Your task to perform on an android device: toggle show notifications on the lock screen Image 0: 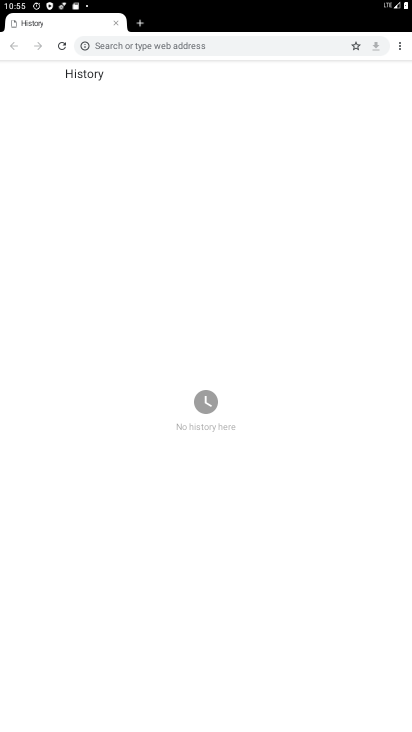
Step 0: press home button
Your task to perform on an android device: toggle show notifications on the lock screen Image 1: 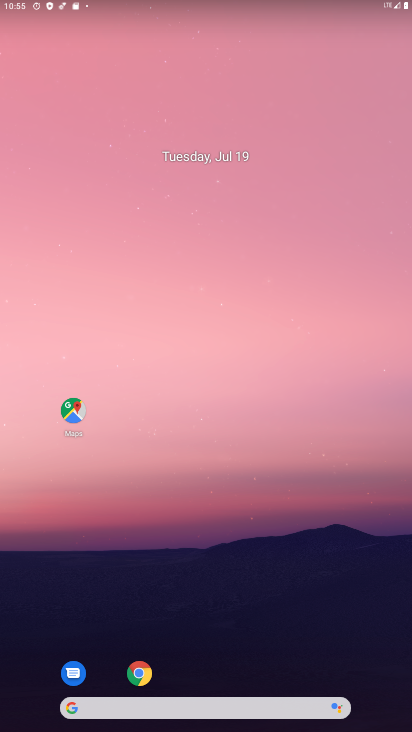
Step 1: drag from (270, 622) to (332, 192)
Your task to perform on an android device: toggle show notifications on the lock screen Image 2: 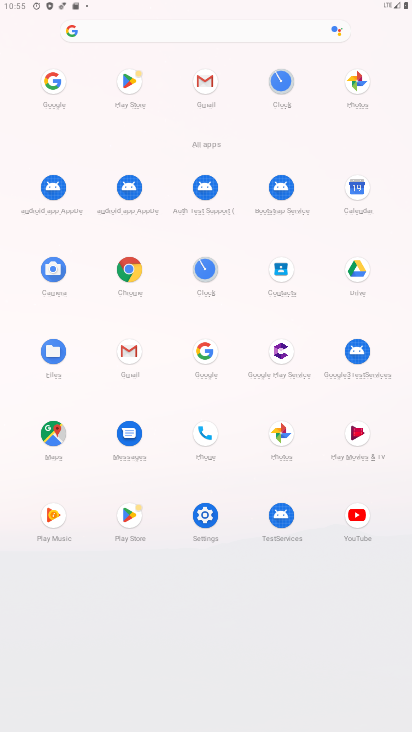
Step 2: click (197, 517)
Your task to perform on an android device: toggle show notifications on the lock screen Image 3: 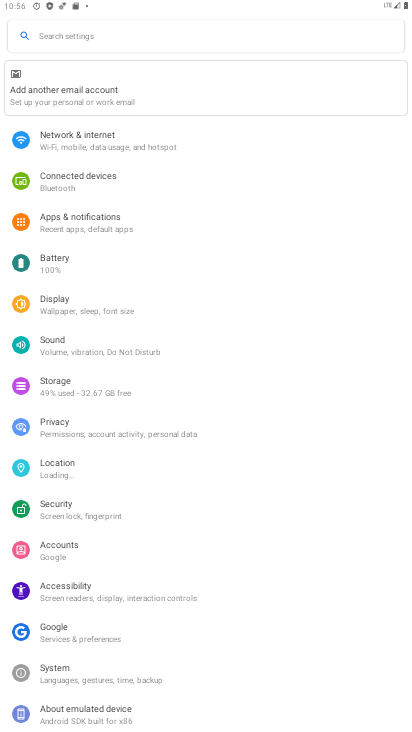
Step 3: click (115, 233)
Your task to perform on an android device: toggle show notifications on the lock screen Image 4: 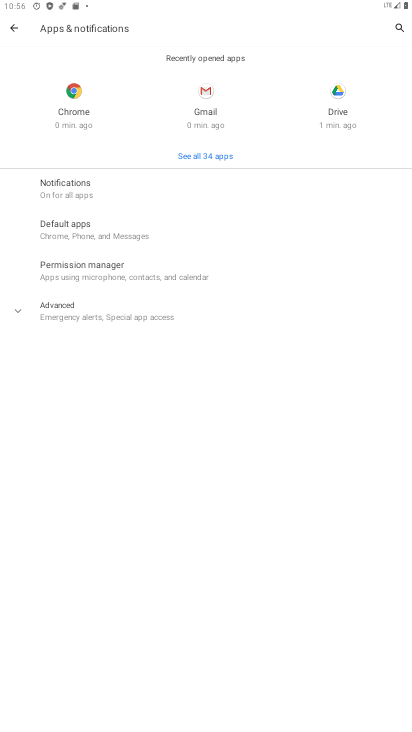
Step 4: click (125, 187)
Your task to perform on an android device: toggle show notifications on the lock screen Image 5: 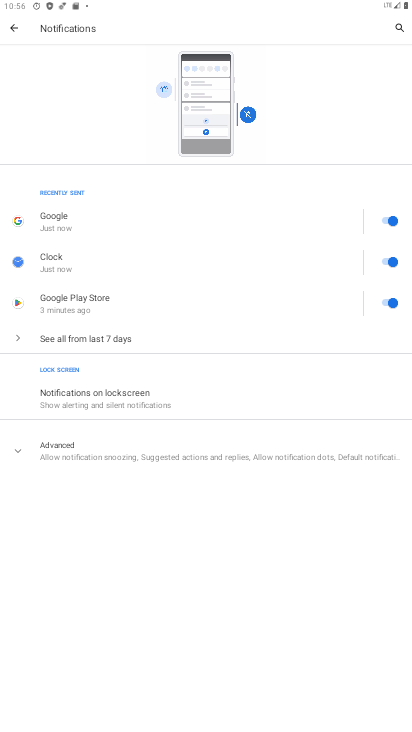
Step 5: click (145, 403)
Your task to perform on an android device: toggle show notifications on the lock screen Image 6: 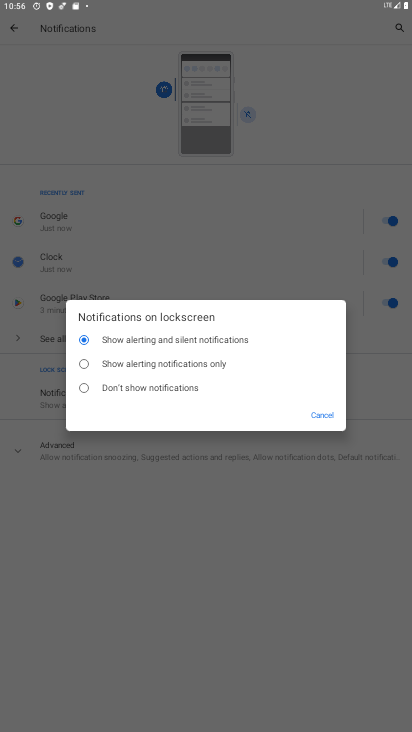
Step 6: click (146, 388)
Your task to perform on an android device: toggle show notifications on the lock screen Image 7: 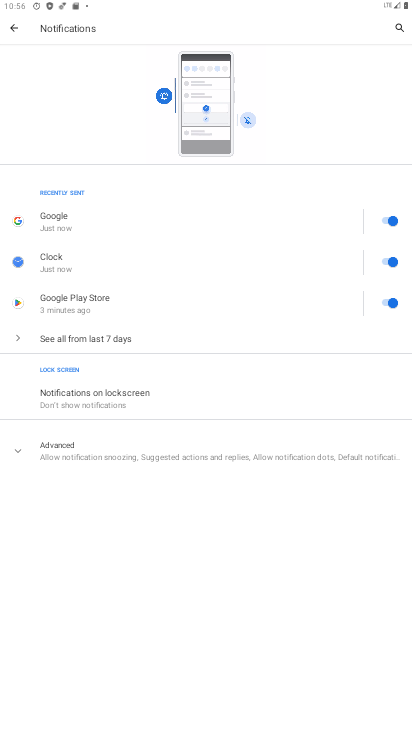
Step 7: task complete